Your task to perform on an android device: turn on translation in the chrome app Image 0: 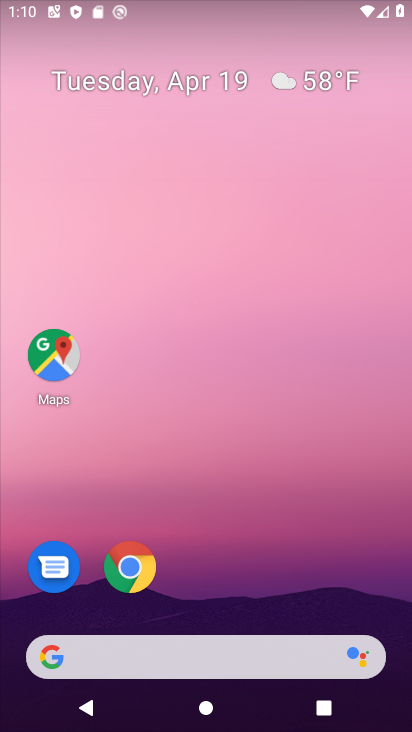
Step 0: click (130, 566)
Your task to perform on an android device: turn on translation in the chrome app Image 1: 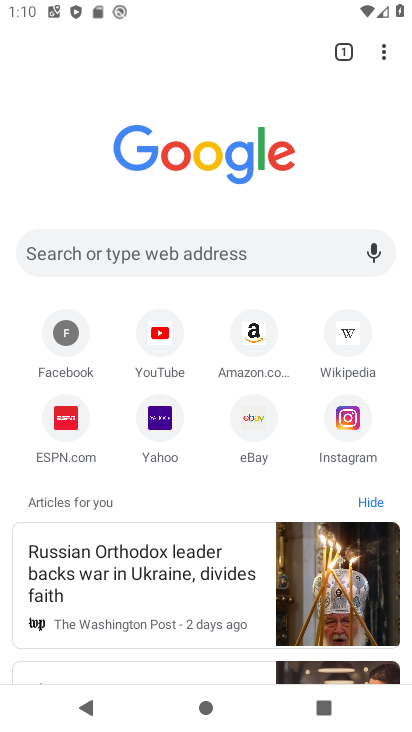
Step 1: click (382, 55)
Your task to perform on an android device: turn on translation in the chrome app Image 2: 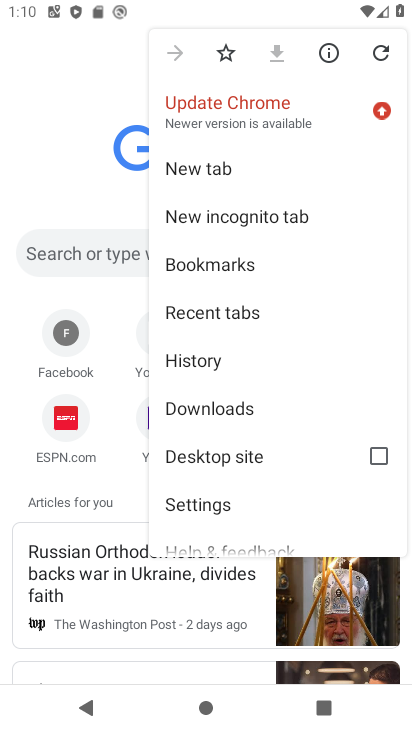
Step 2: click (216, 498)
Your task to perform on an android device: turn on translation in the chrome app Image 3: 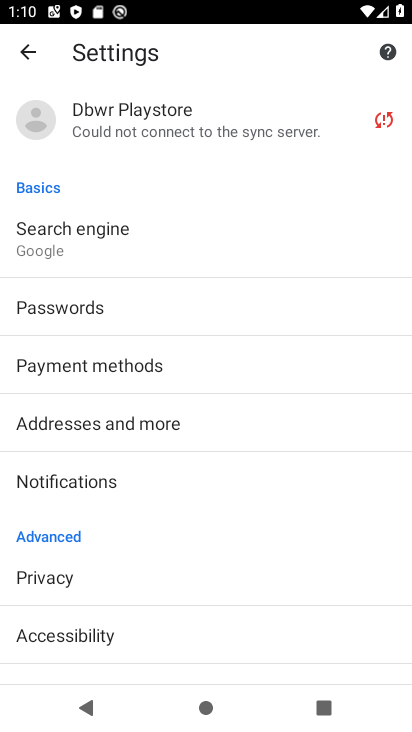
Step 3: drag from (192, 633) to (211, 171)
Your task to perform on an android device: turn on translation in the chrome app Image 4: 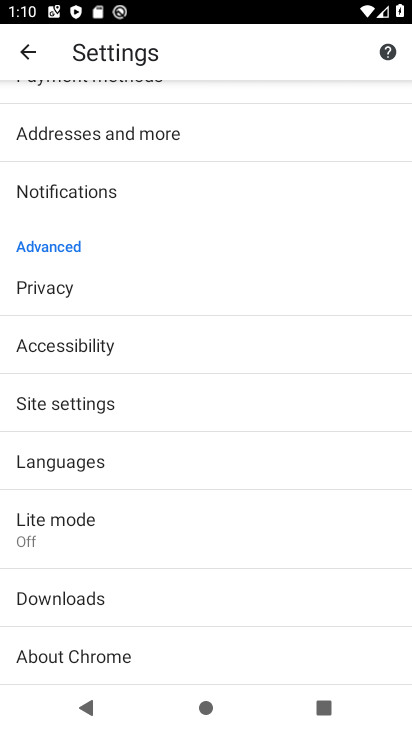
Step 4: click (44, 468)
Your task to perform on an android device: turn on translation in the chrome app Image 5: 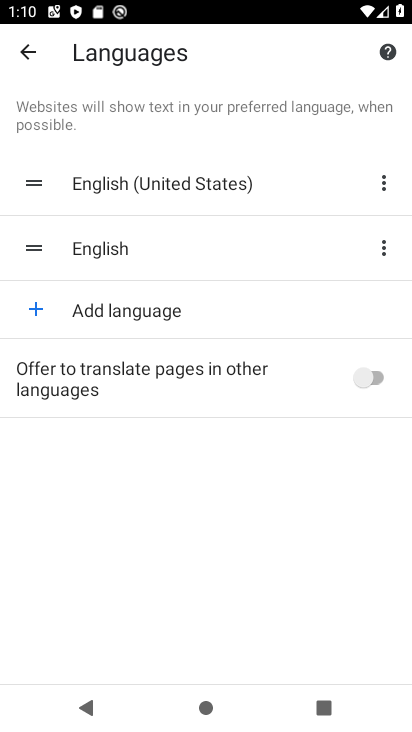
Step 5: click (375, 374)
Your task to perform on an android device: turn on translation in the chrome app Image 6: 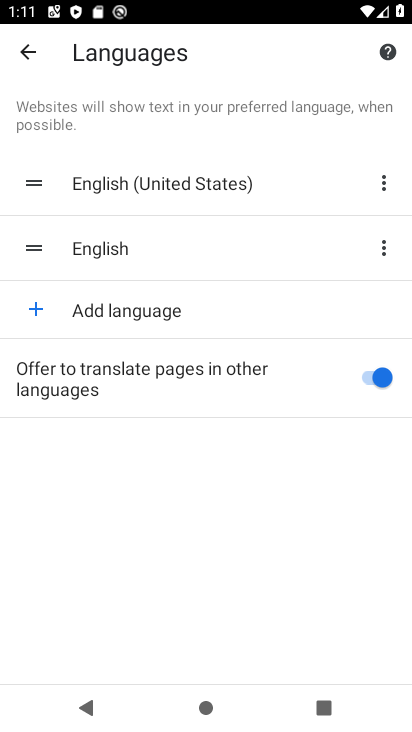
Step 6: task complete